Your task to perform on an android device: Find coffee shops on Maps Image 0: 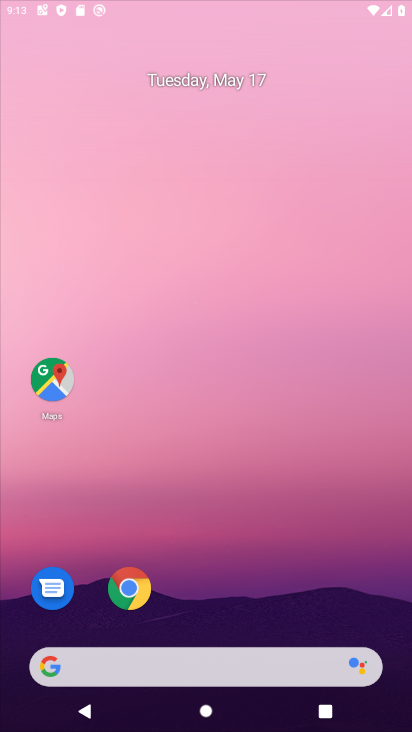
Step 0: click (249, 213)
Your task to perform on an android device: Find coffee shops on Maps Image 1: 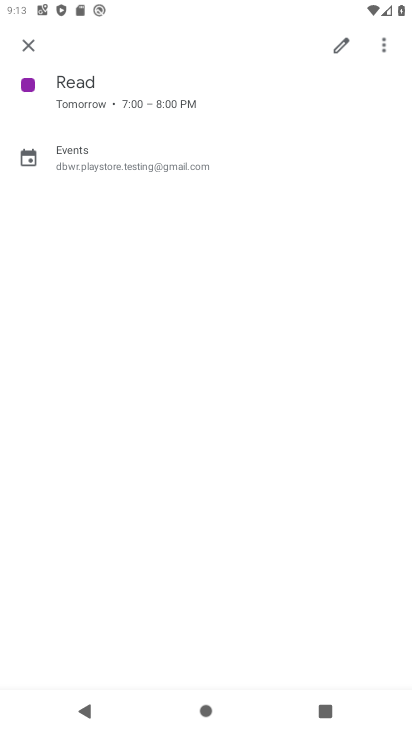
Step 1: press home button
Your task to perform on an android device: Find coffee shops on Maps Image 2: 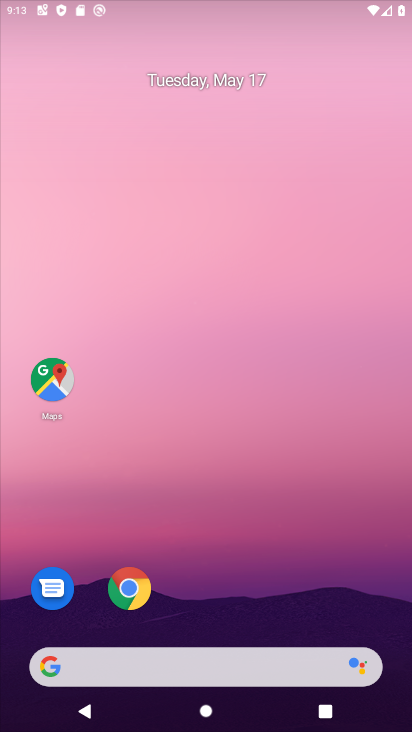
Step 2: drag from (209, 532) to (190, 246)
Your task to perform on an android device: Find coffee shops on Maps Image 3: 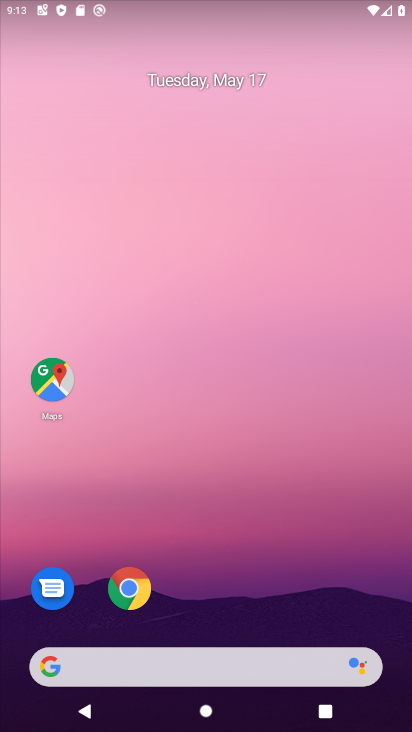
Step 3: click (40, 372)
Your task to perform on an android device: Find coffee shops on Maps Image 4: 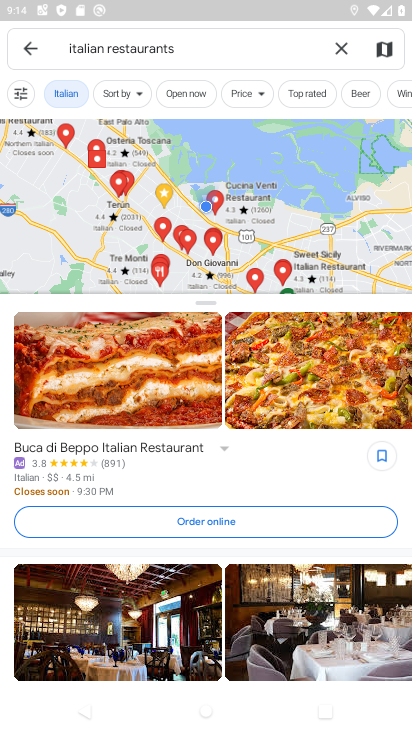
Step 4: click (340, 44)
Your task to perform on an android device: Find coffee shops on Maps Image 5: 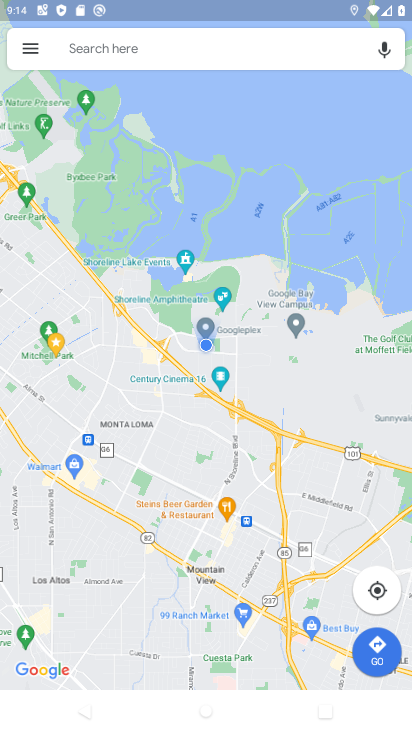
Step 5: click (186, 40)
Your task to perform on an android device: Find coffee shops on Maps Image 6: 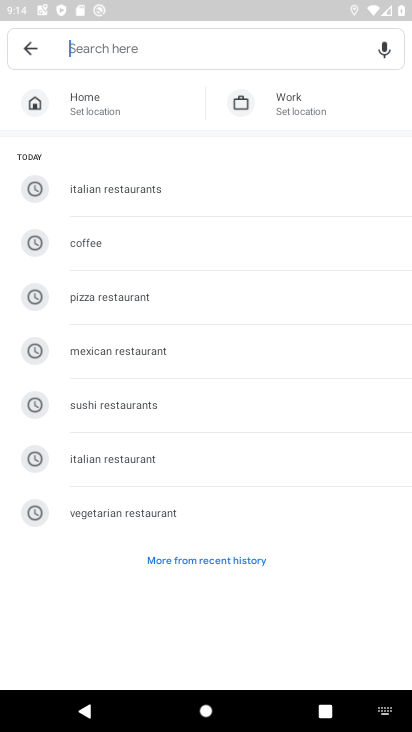
Step 6: type " coffee shops "
Your task to perform on an android device: Find coffee shops on Maps Image 7: 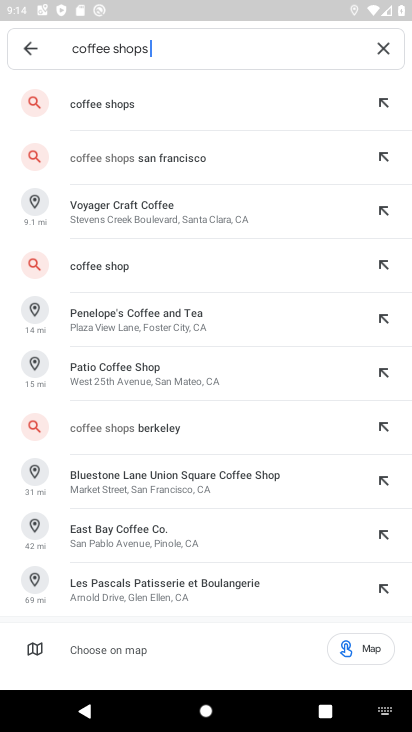
Step 7: click (180, 105)
Your task to perform on an android device: Find coffee shops on Maps Image 8: 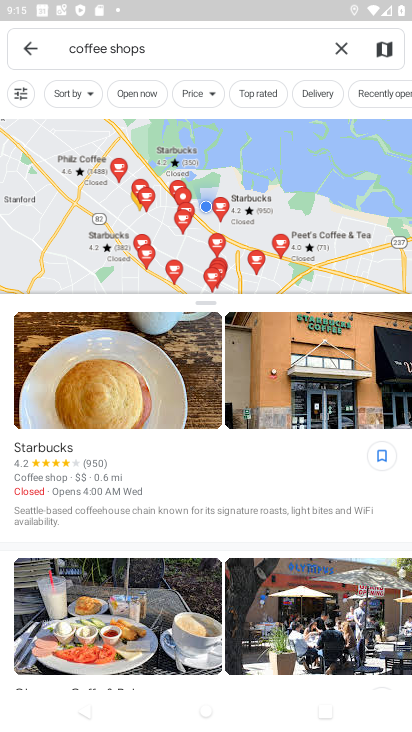
Step 8: task complete